Your task to perform on an android device: allow cookies in the chrome app Image 0: 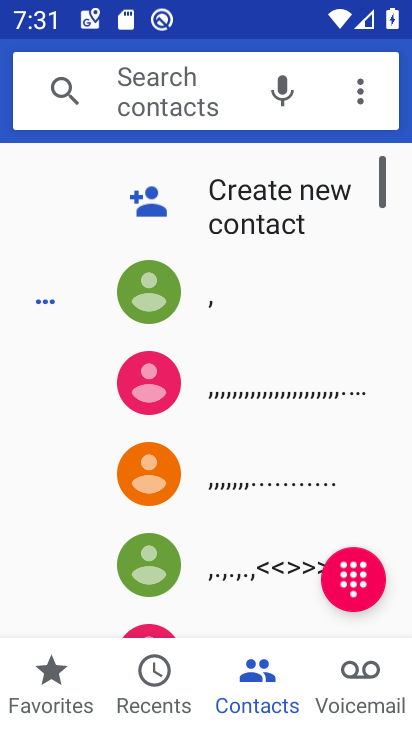
Step 0: press home button
Your task to perform on an android device: allow cookies in the chrome app Image 1: 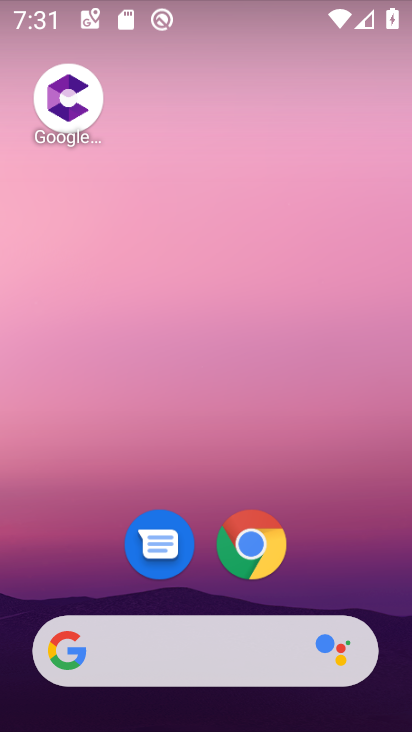
Step 1: drag from (263, 693) to (317, 183)
Your task to perform on an android device: allow cookies in the chrome app Image 2: 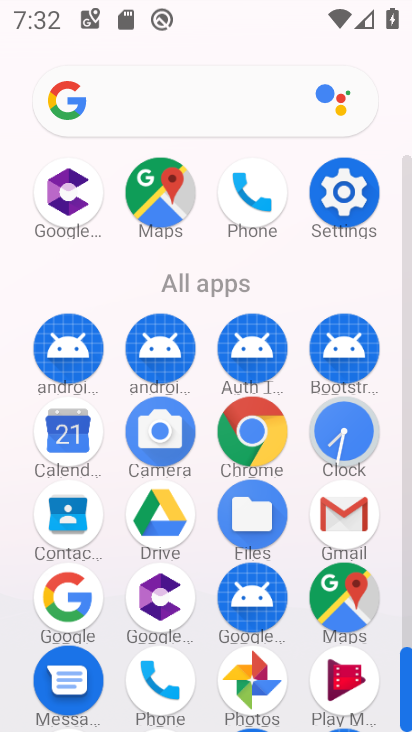
Step 2: click (255, 425)
Your task to perform on an android device: allow cookies in the chrome app Image 3: 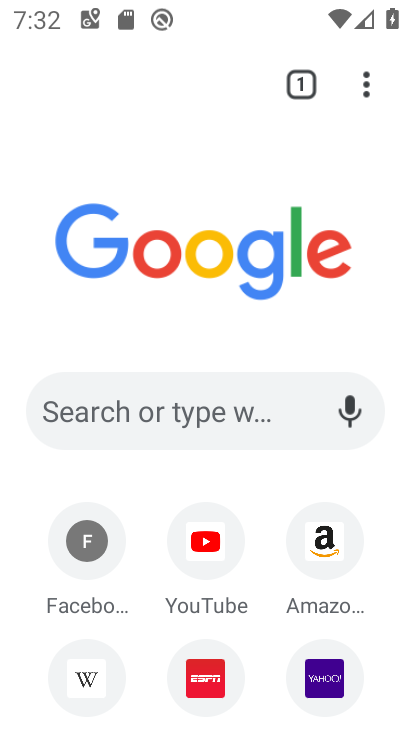
Step 3: click (363, 88)
Your task to perform on an android device: allow cookies in the chrome app Image 4: 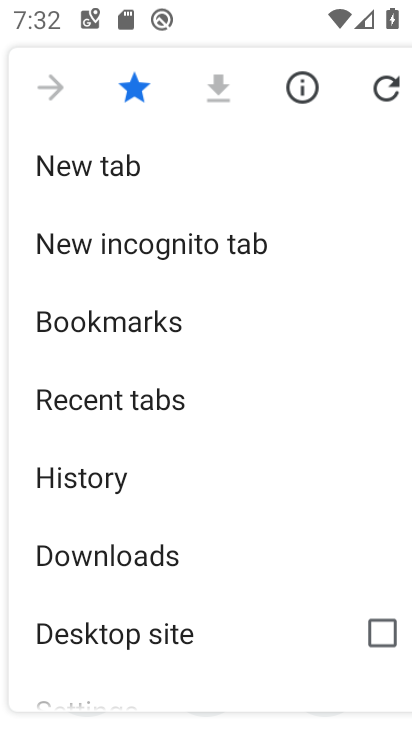
Step 4: click (85, 697)
Your task to perform on an android device: allow cookies in the chrome app Image 5: 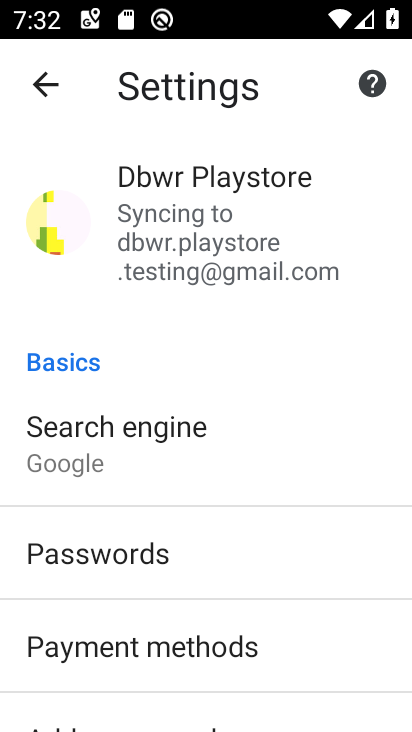
Step 5: drag from (193, 621) to (265, 181)
Your task to perform on an android device: allow cookies in the chrome app Image 6: 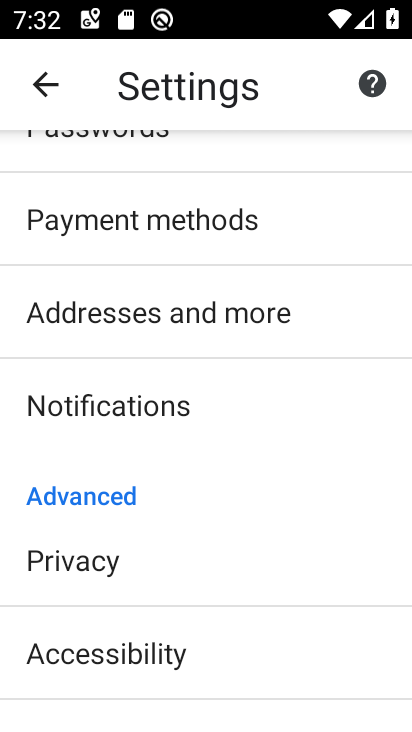
Step 6: drag from (218, 528) to (216, 363)
Your task to perform on an android device: allow cookies in the chrome app Image 7: 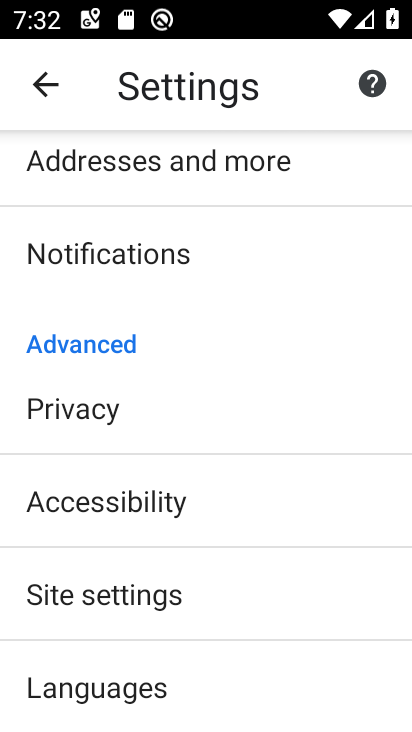
Step 7: drag from (180, 620) to (210, 380)
Your task to perform on an android device: allow cookies in the chrome app Image 8: 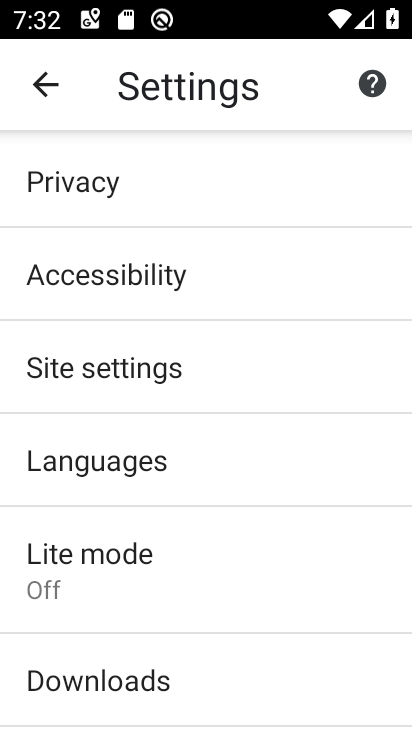
Step 8: click (119, 371)
Your task to perform on an android device: allow cookies in the chrome app Image 9: 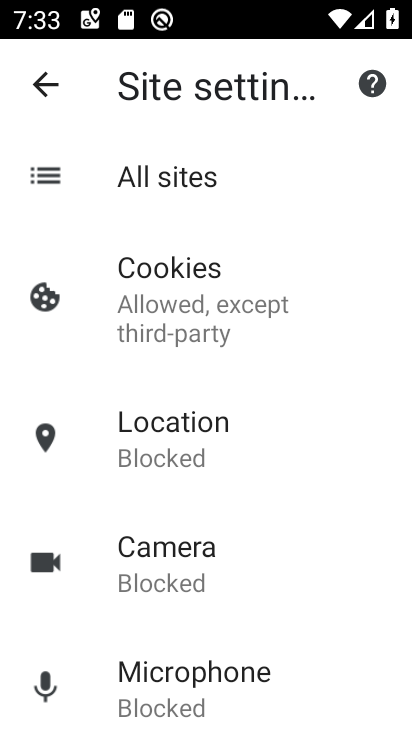
Step 9: click (199, 310)
Your task to perform on an android device: allow cookies in the chrome app Image 10: 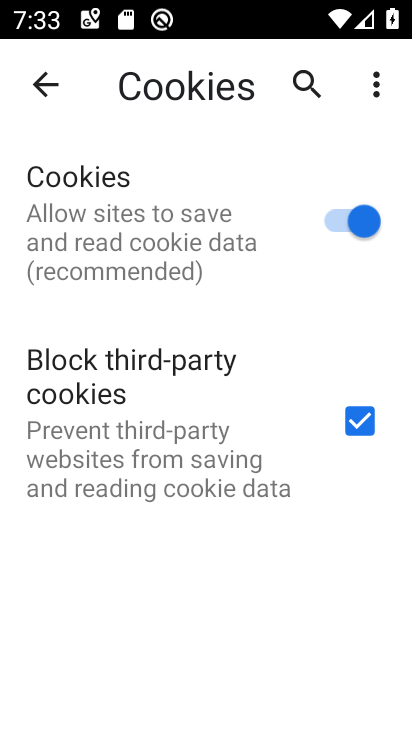
Step 10: click (217, 204)
Your task to perform on an android device: allow cookies in the chrome app Image 11: 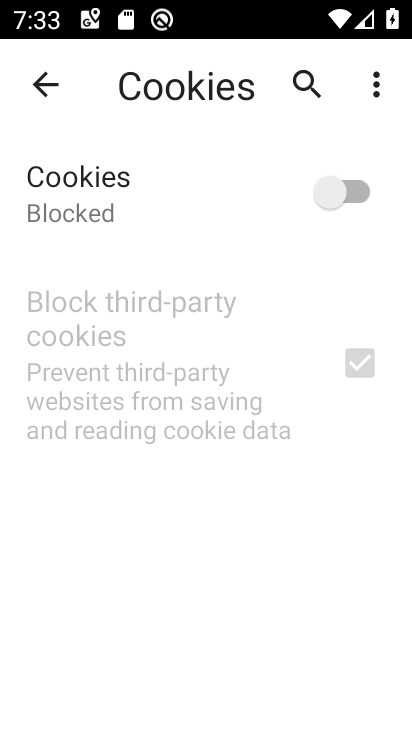
Step 11: click (217, 204)
Your task to perform on an android device: allow cookies in the chrome app Image 12: 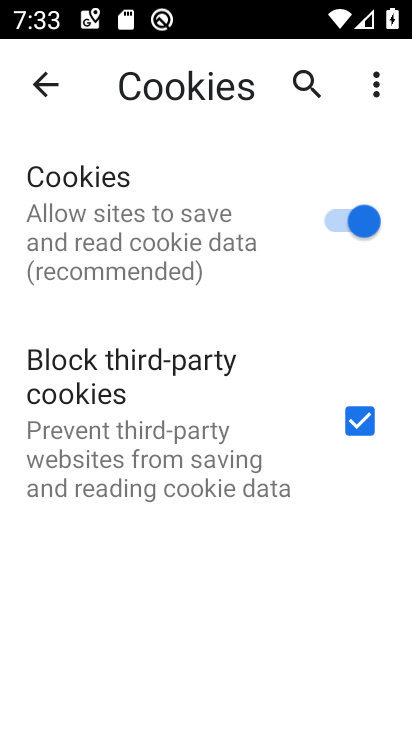
Step 12: task complete